Your task to perform on an android device: Open location settings Image 0: 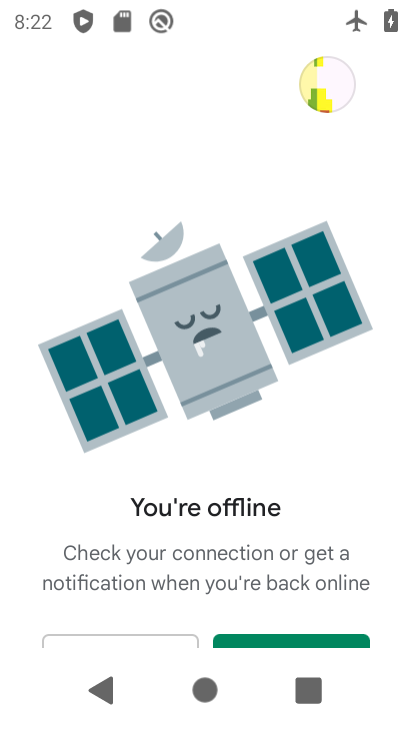
Step 0: press home button
Your task to perform on an android device: Open location settings Image 1: 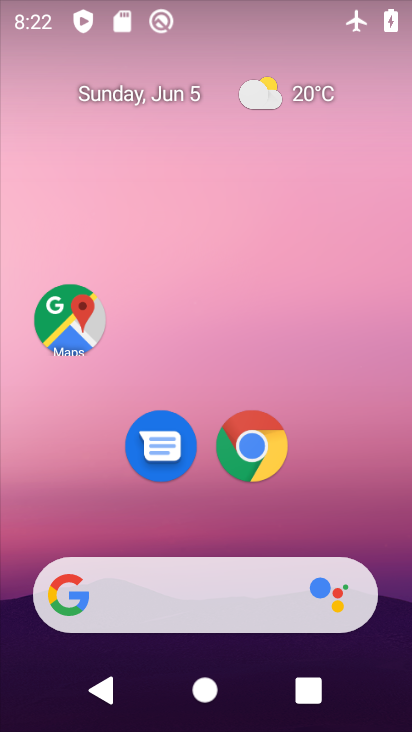
Step 1: drag from (202, 536) to (227, 182)
Your task to perform on an android device: Open location settings Image 2: 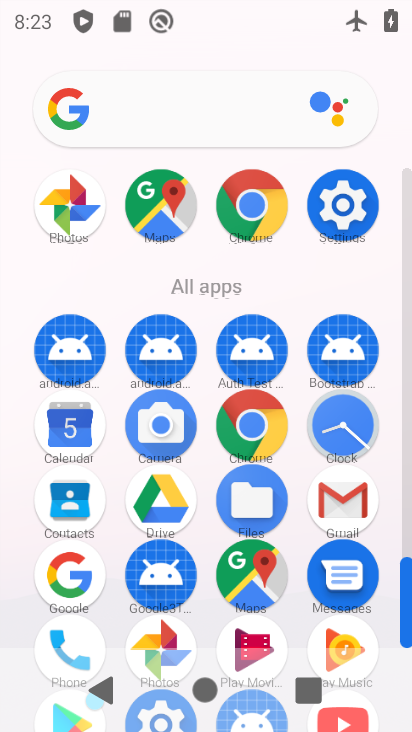
Step 2: click (322, 206)
Your task to perform on an android device: Open location settings Image 3: 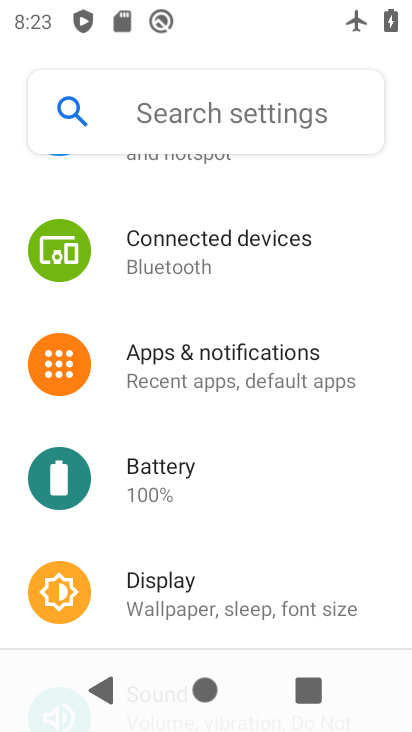
Step 3: drag from (192, 573) to (213, 282)
Your task to perform on an android device: Open location settings Image 4: 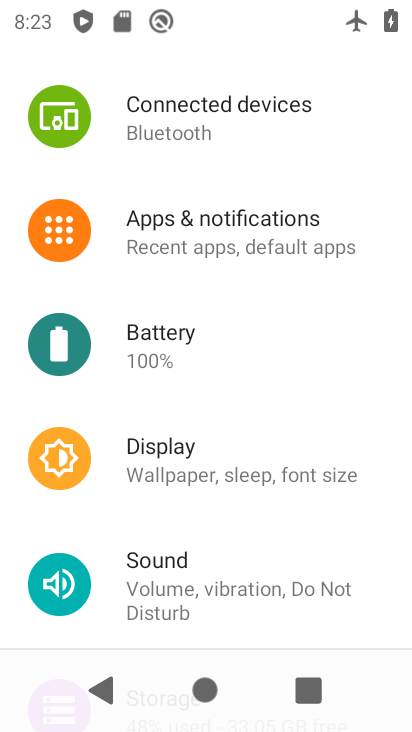
Step 4: drag from (199, 536) to (241, 240)
Your task to perform on an android device: Open location settings Image 5: 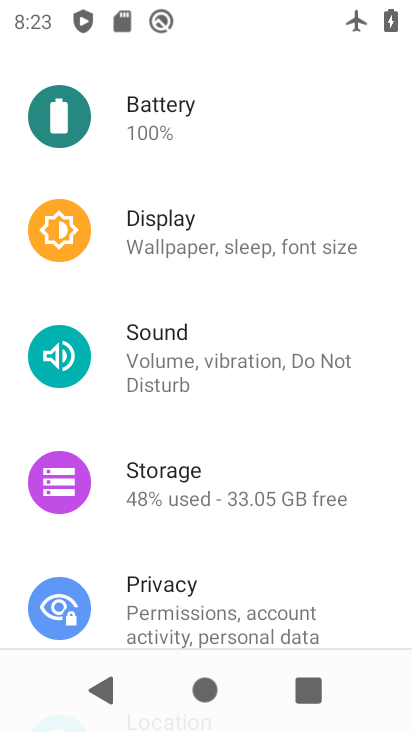
Step 5: drag from (217, 576) to (226, 276)
Your task to perform on an android device: Open location settings Image 6: 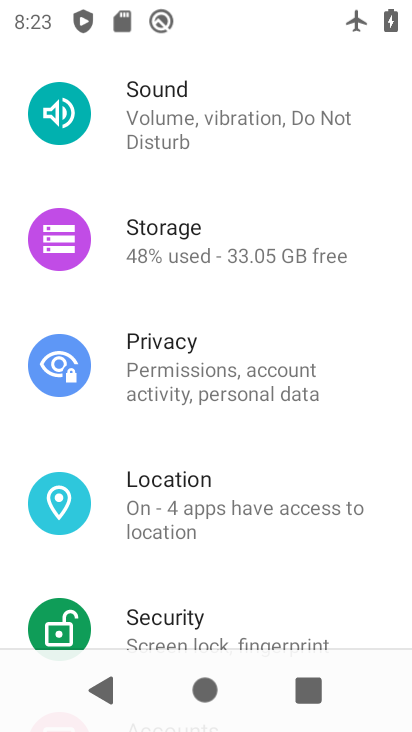
Step 6: click (205, 484)
Your task to perform on an android device: Open location settings Image 7: 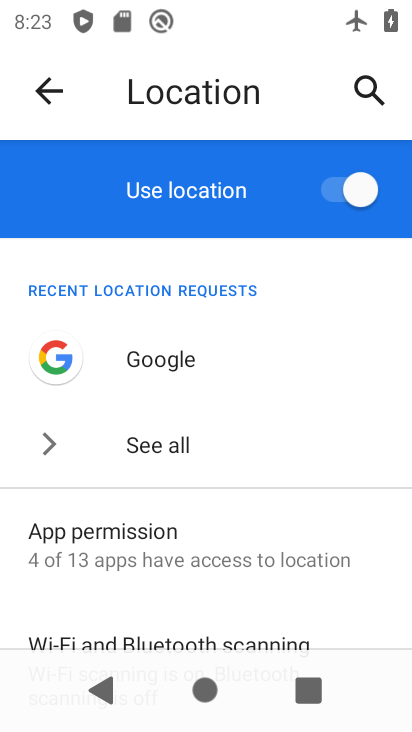
Step 7: task complete